Your task to perform on an android device: Go to Android settings Image 0: 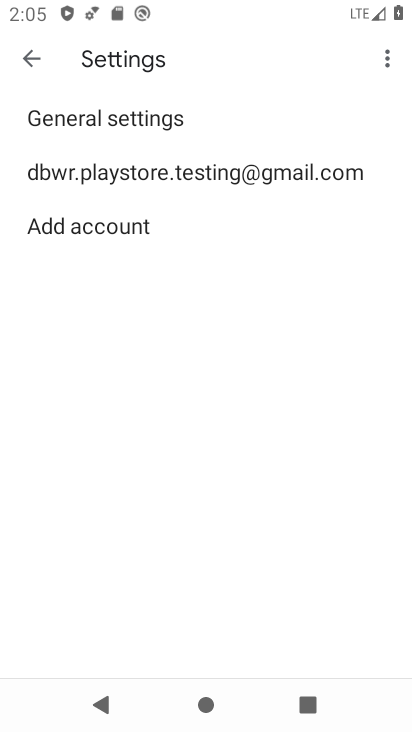
Step 0: press home button
Your task to perform on an android device: Go to Android settings Image 1: 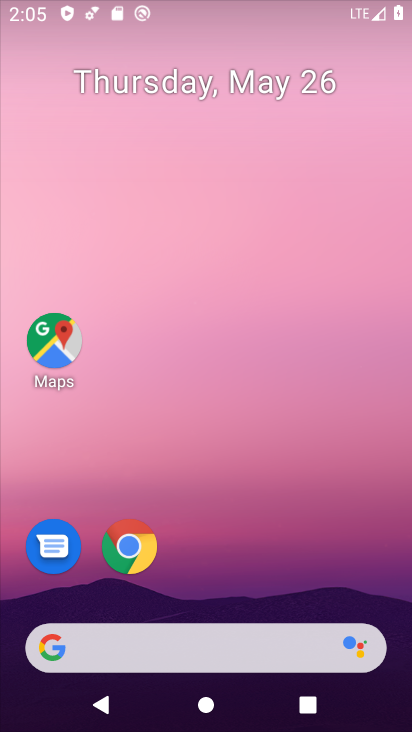
Step 1: drag from (277, 539) to (202, 26)
Your task to perform on an android device: Go to Android settings Image 2: 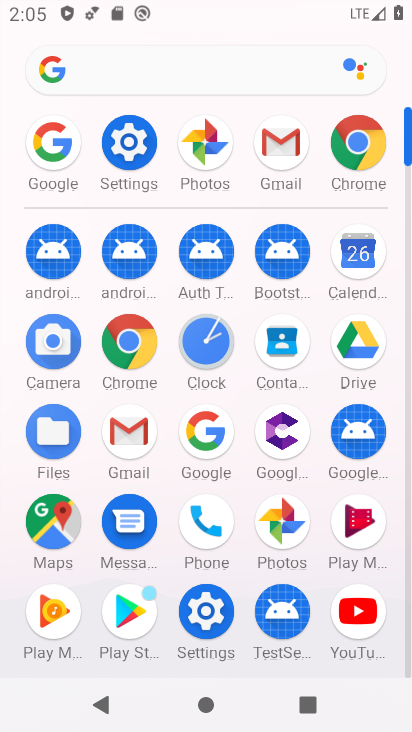
Step 2: click (135, 150)
Your task to perform on an android device: Go to Android settings Image 3: 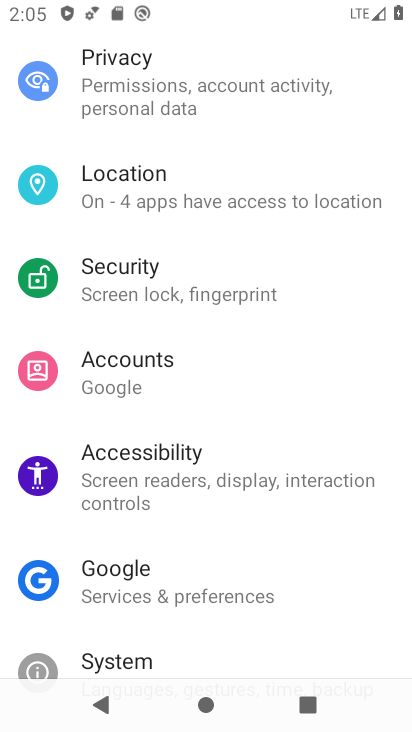
Step 3: drag from (234, 571) to (257, 103)
Your task to perform on an android device: Go to Android settings Image 4: 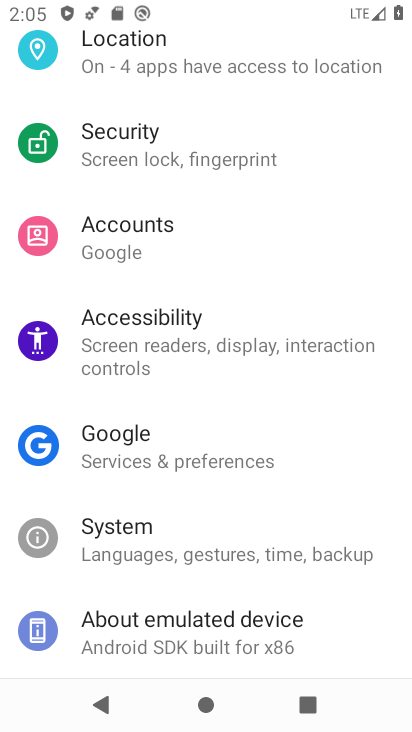
Step 4: click (217, 632)
Your task to perform on an android device: Go to Android settings Image 5: 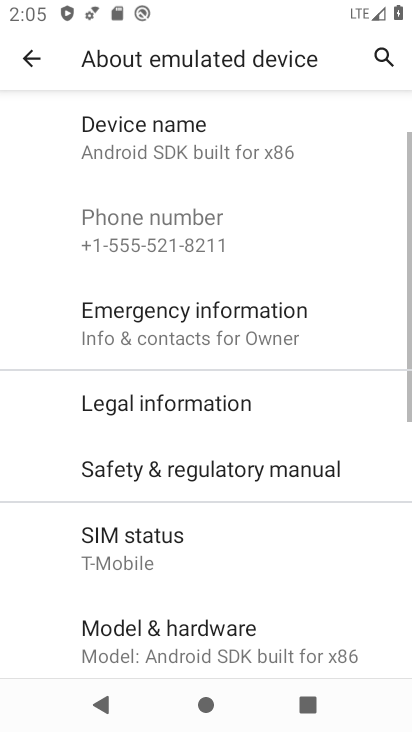
Step 5: drag from (197, 623) to (246, 119)
Your task to perform on an android device: Go to Android settings Image 6: 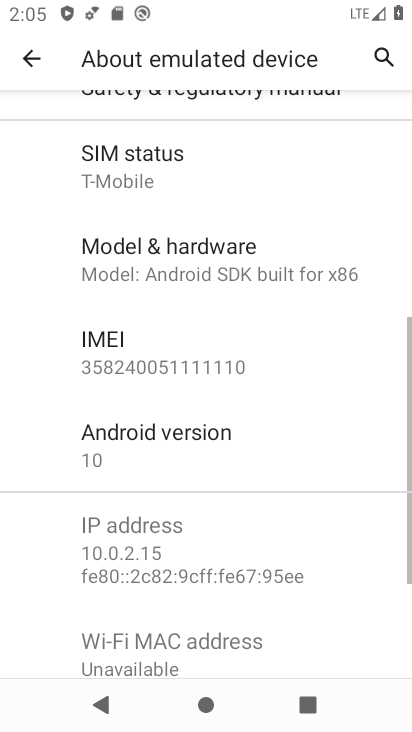
Step 6: click (173, 442)
Your task to perform on an android device: Go to Android settings Image 7: 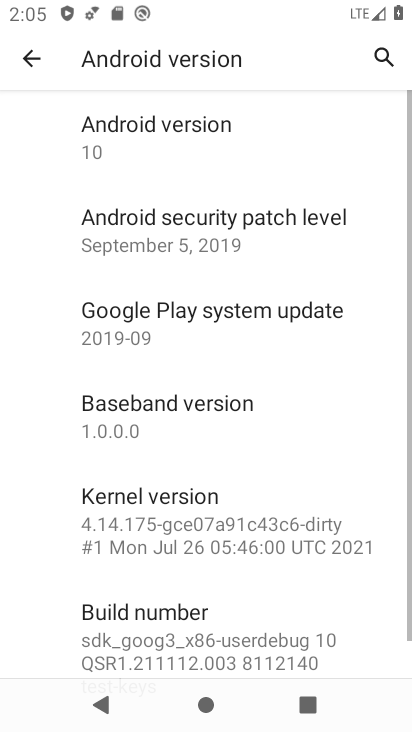
Step 7: task complete